Your task to perform on an android device: turn off data saver in the chrome app Image 0: 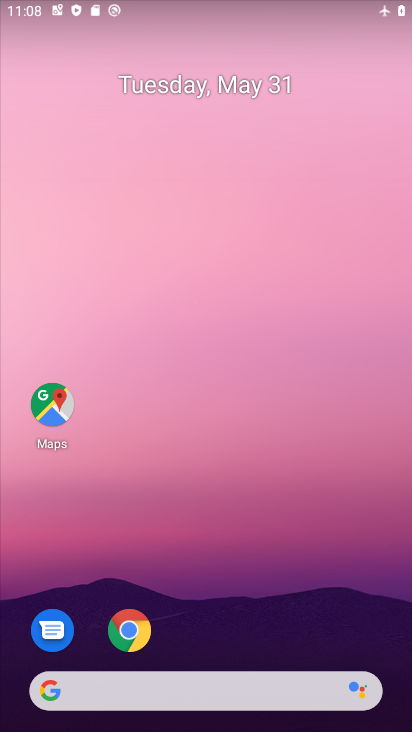
Step 0: drag from (248, 668) to (314, 144)
Your task to perform on an android device: turn off data saver in the chrome app Image 1: 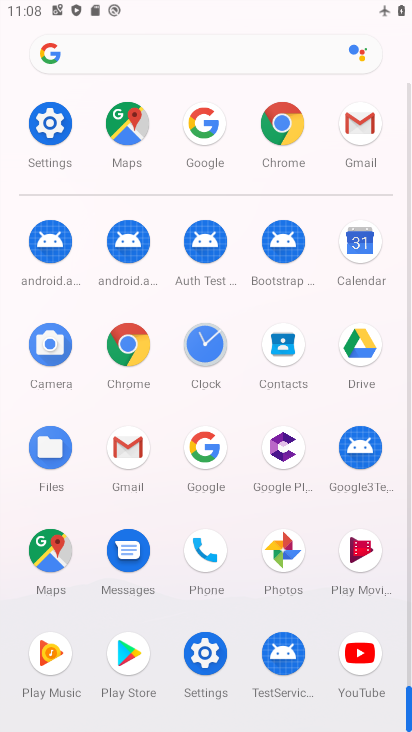
Step 1: click (288, 152)
Your task to perform on an android device: turn off data saver in the chrome app Image 2: 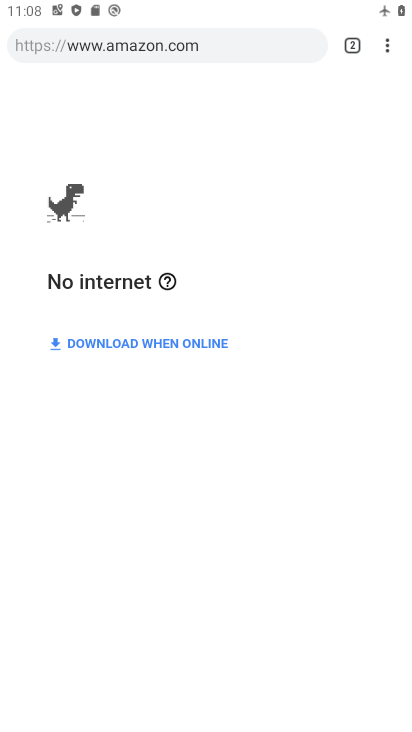
Step 2: click (395, 45)
Your task to perform on an android device: turn off data saver in the chrome app Image 3: 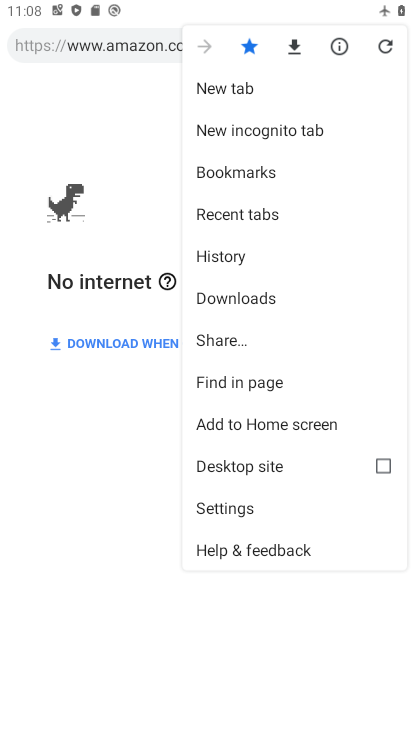
Step 3: click (250, 512)
Your task to perform on an android device: turn off data saver in the chrome app Image 4: 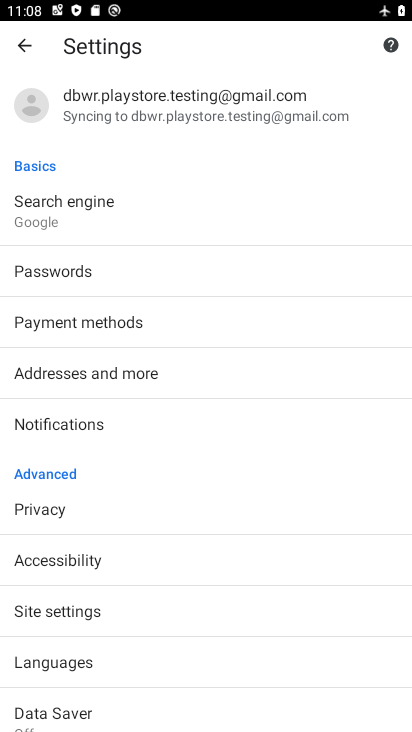
Step 4: drag from (142, 588) to (233, 325)
Your task to perform on an android device: turn off data saver in the chrome app Image 5: 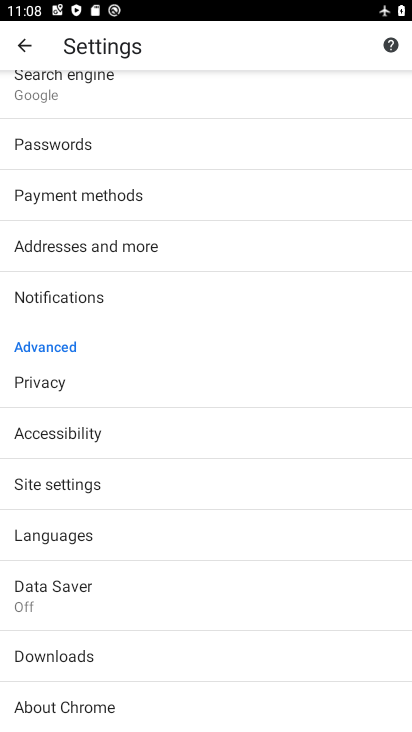
Step 5: drag from (136, 540) to (169, 321)
Your task to perform on an android device: turn off data saver in the chrome app Image 6: 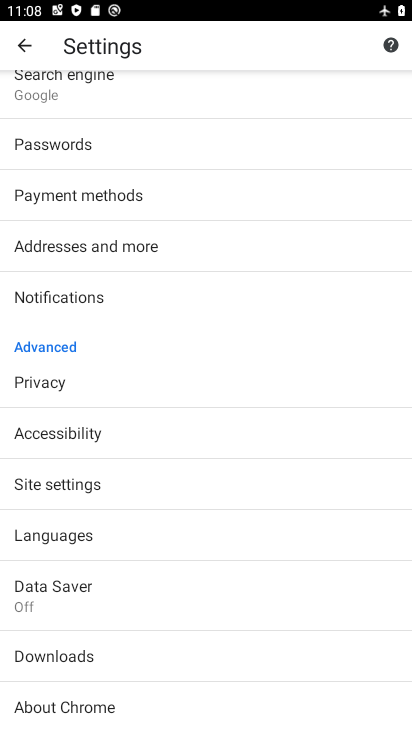
Step 6: click (98, 587)
Your task to perform on an android device: turn off data saver in the chrome app Image 7: 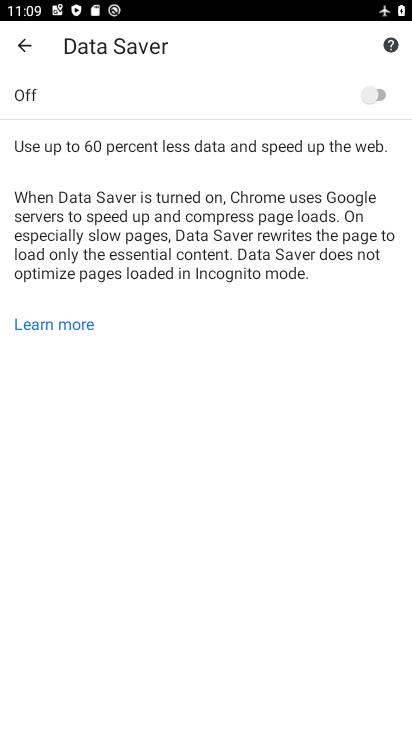
Step 7: task complete